Your task to perform on an android device: open app "Move to iOS" Image 0: 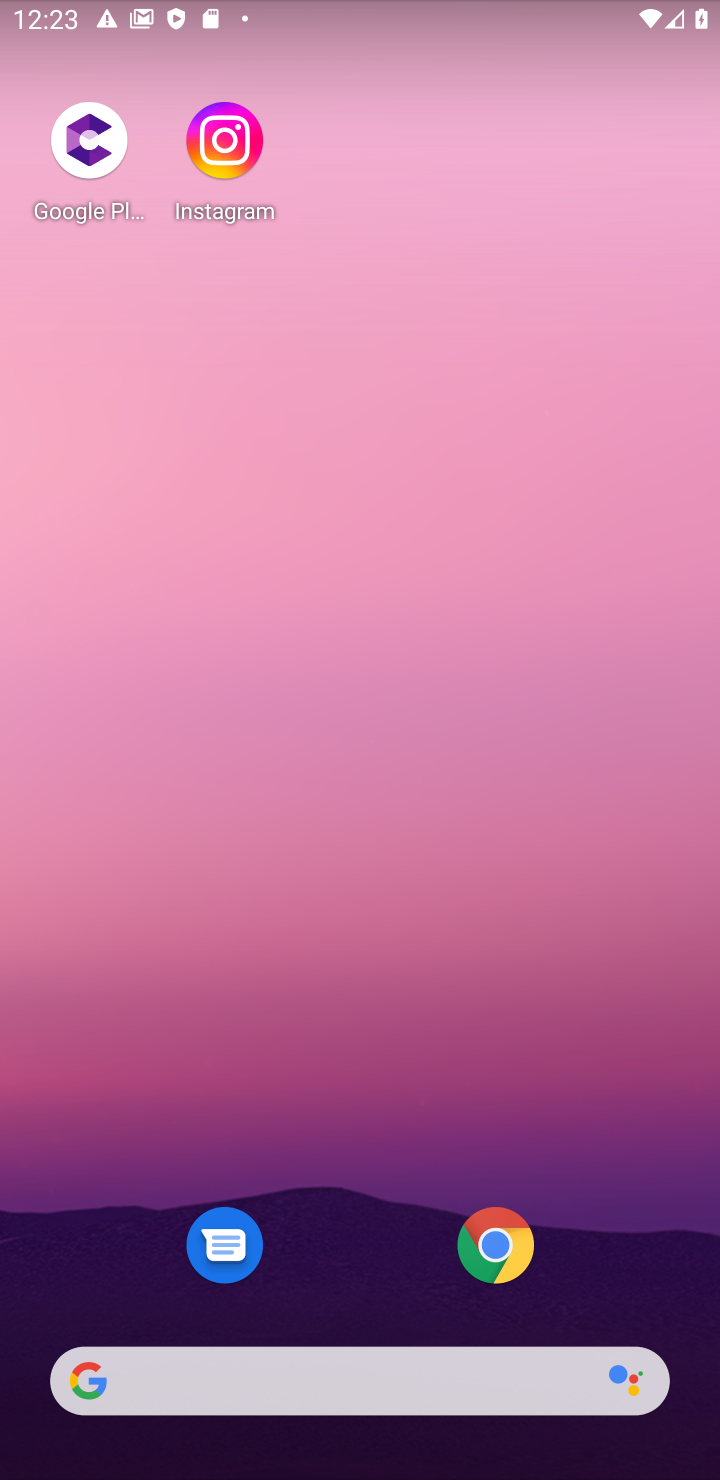
Step 0: drag from (408, 1329) to (408, 346)
Your task to perform on an android device: open app "Move to iOS" Image 1: 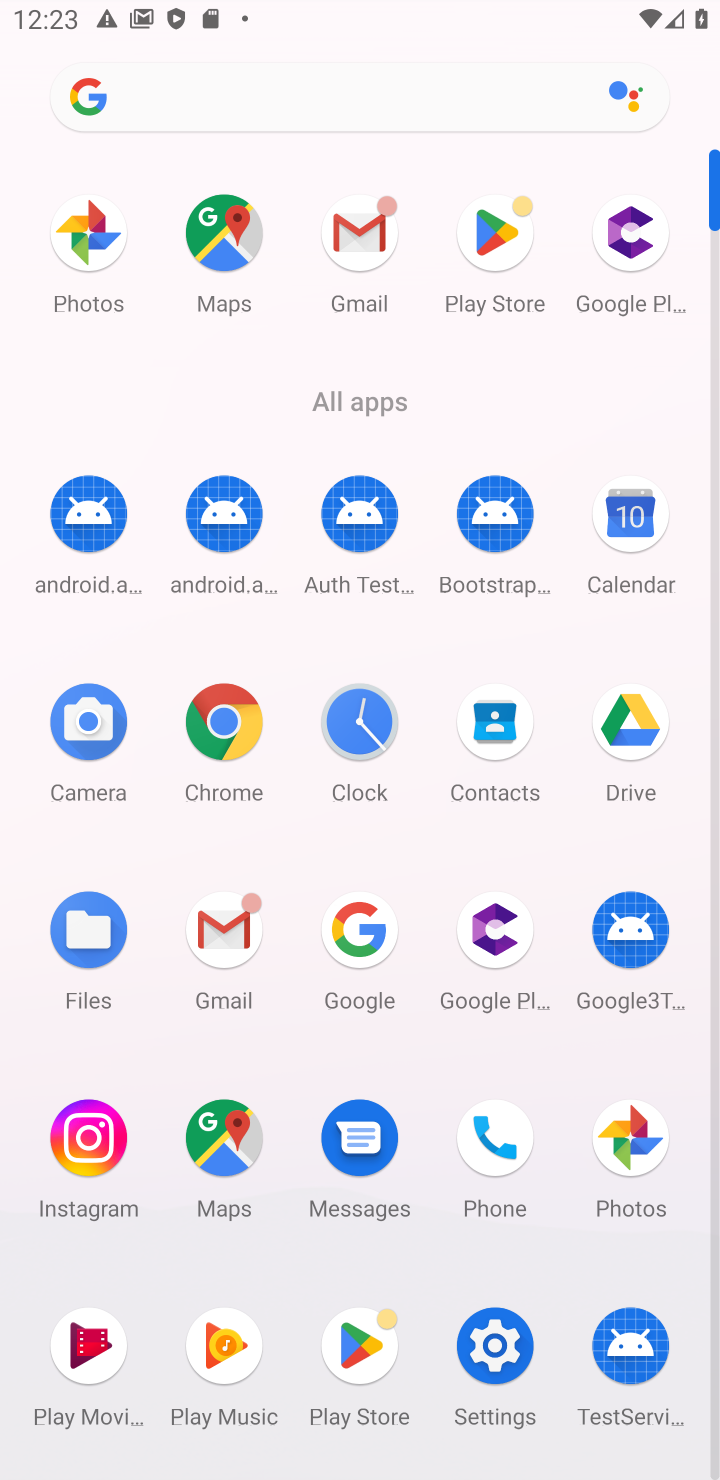
Step 1: click (501, 230)
Your task to perform on an android device: open app "Move to iOS" Image 2: 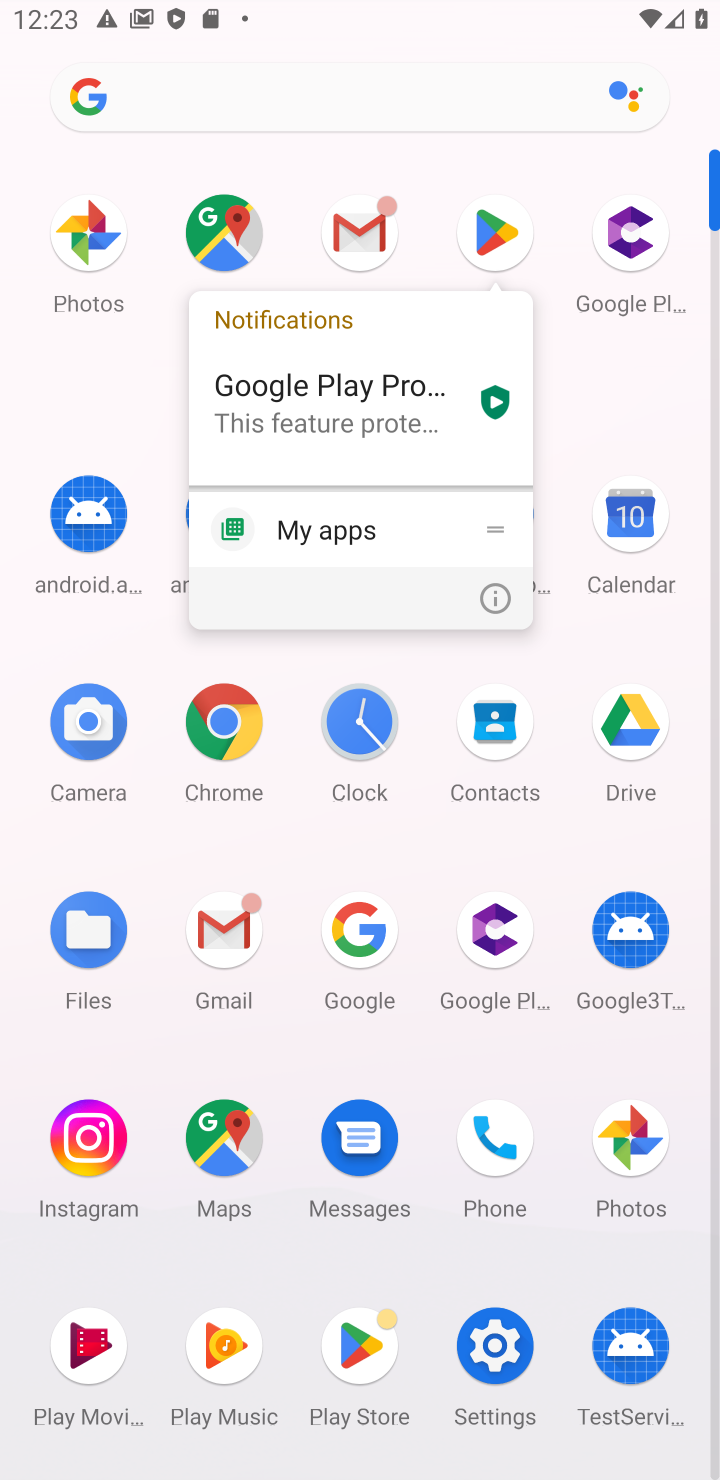
Step 2: click (485, 231)
Your task to perform on an android device: open app "Move to iOS" Image 3: 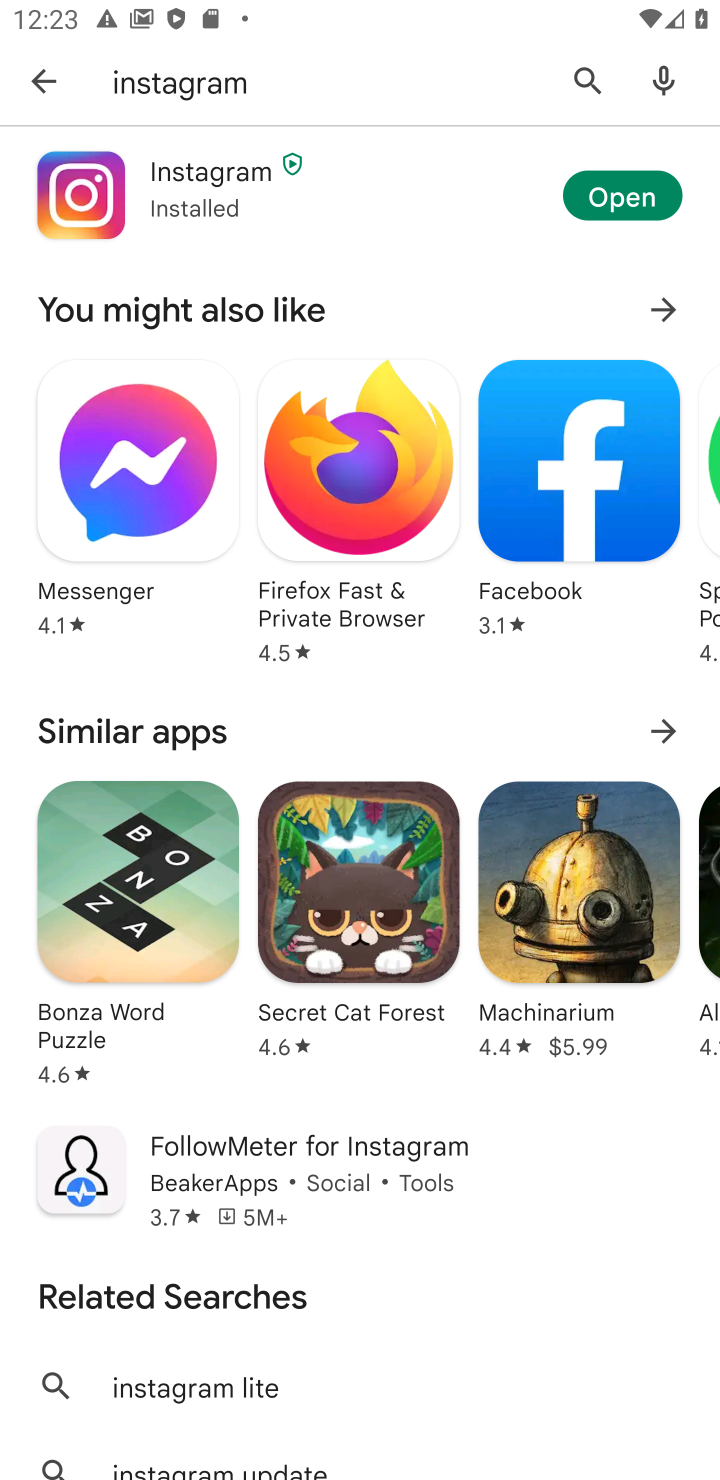
Step 3: click (574, 92)
Your task to perform on an android device: open app "Move to iOS" Image 4: 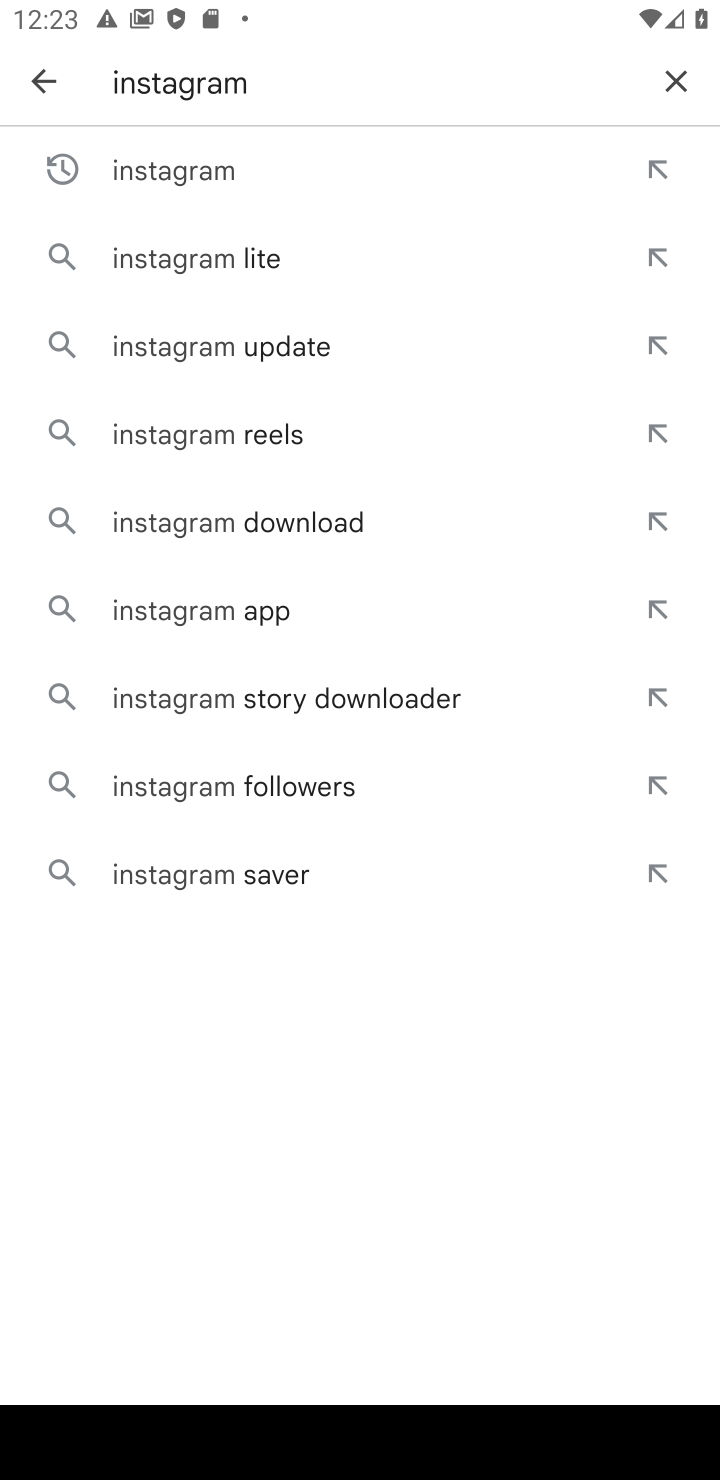
Step 4: click (682, 83)
Your task to perform on an android device: open app "Move to iOS" Image 5: 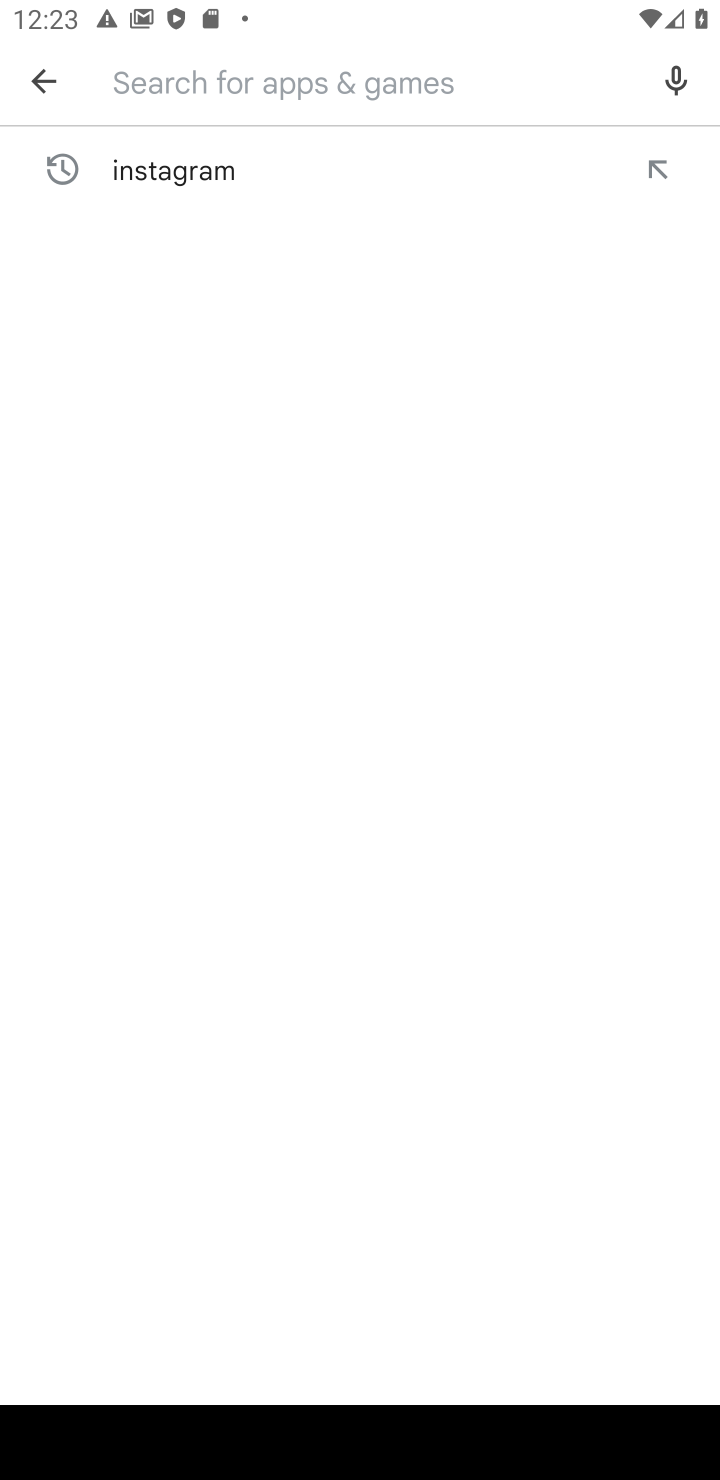
Step 5: type "Move to iOS"
Your task to perform on an android device: open app "Move to iOS" Image 6: 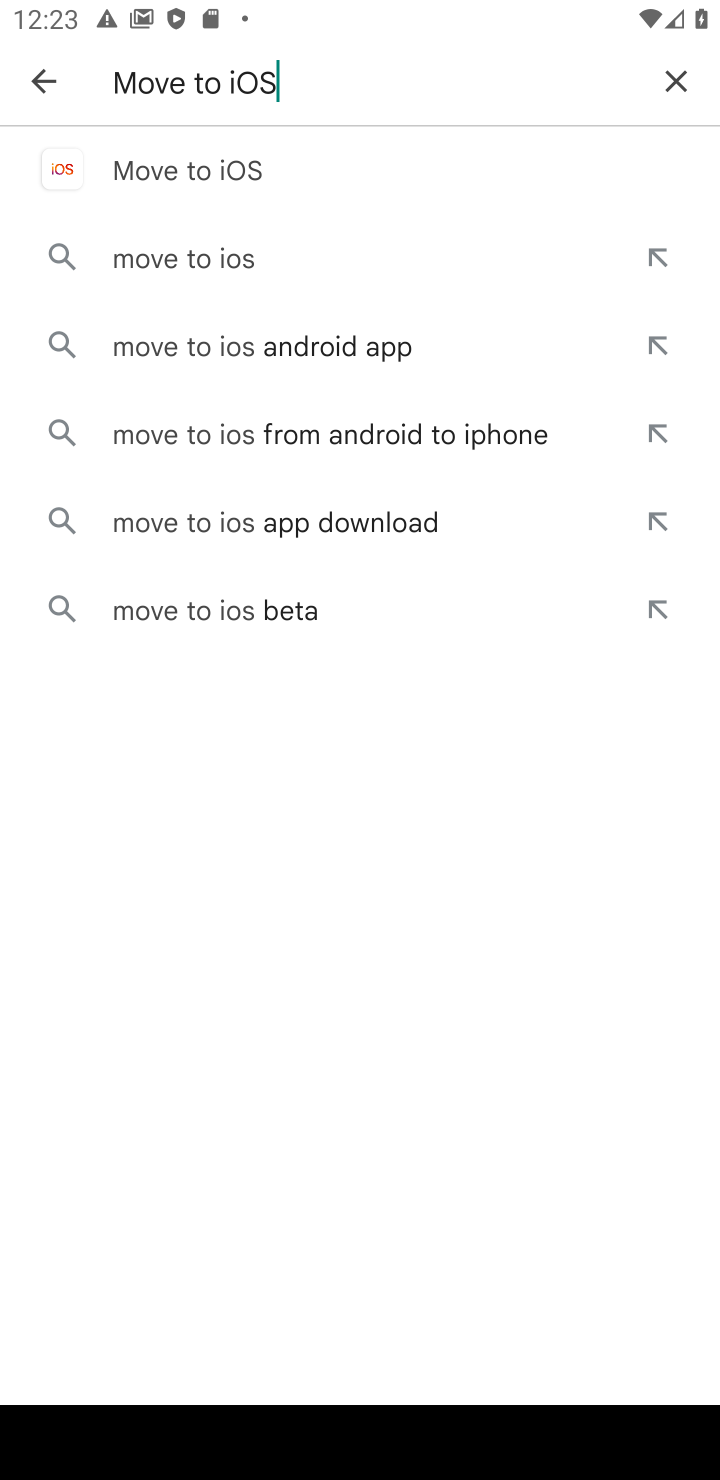
Step 6: click (256, 165)
Your task to perform on an android device: open app "Move to iOS" Image 7: 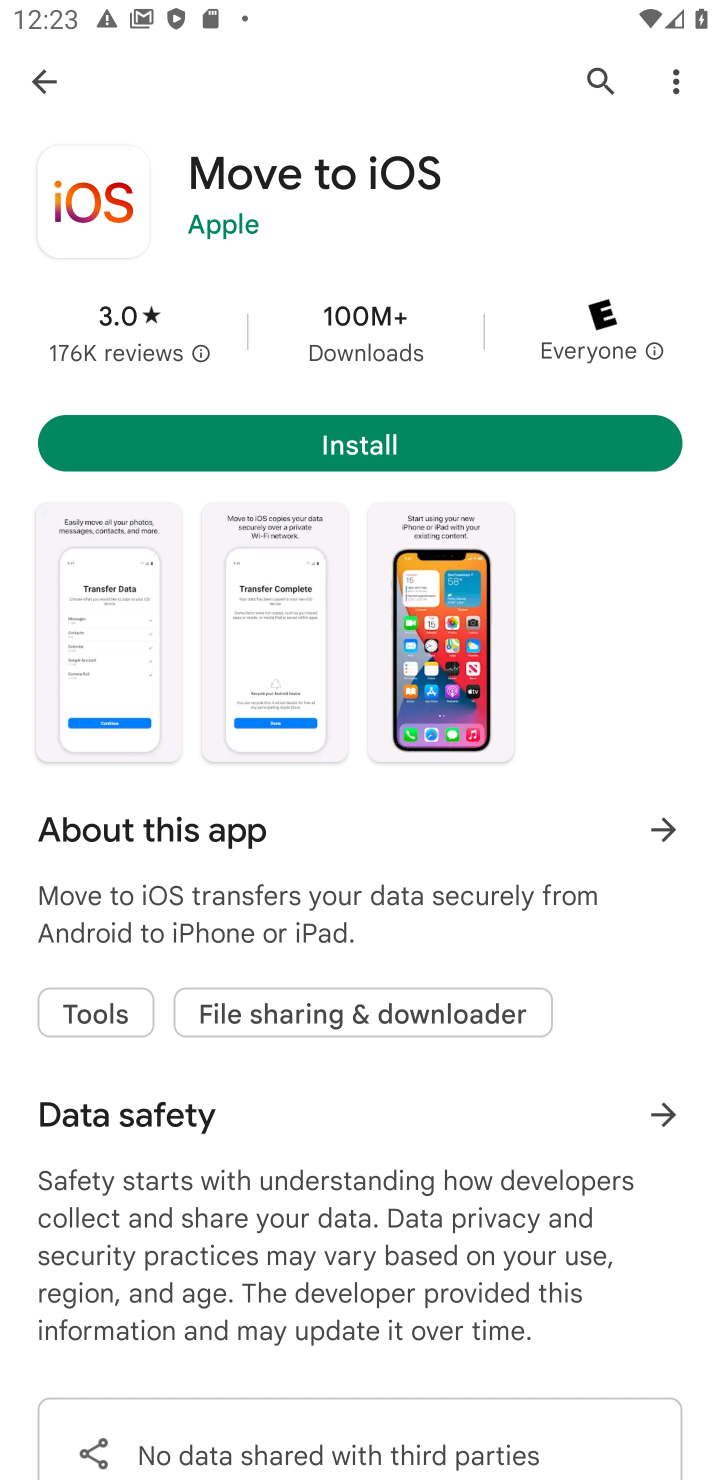
Step 7: click (379, 438)
Your task to perform on an android device: open app "Move to iOS" Image 8: 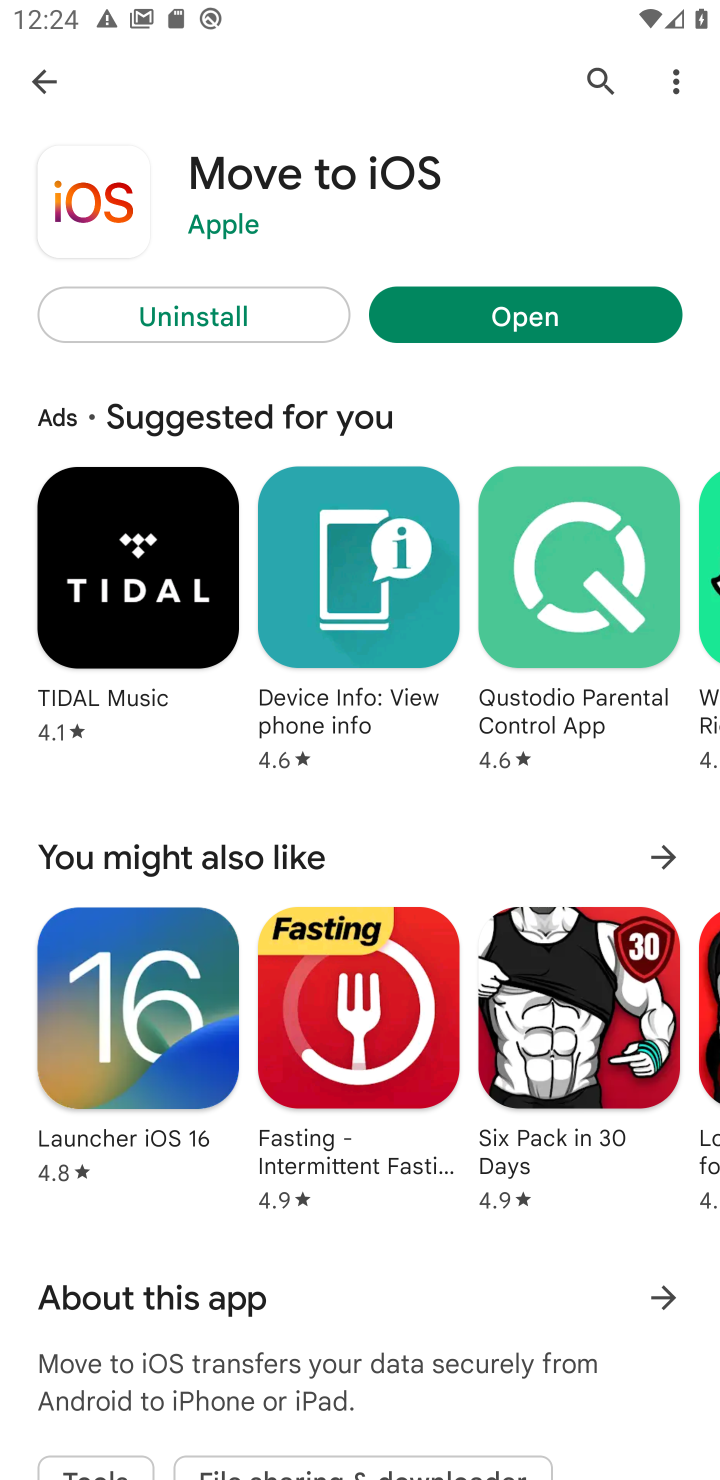
Step 8: click (493, 325)
Your task to perform on an android device: open app "Move to iOS" Image 9: 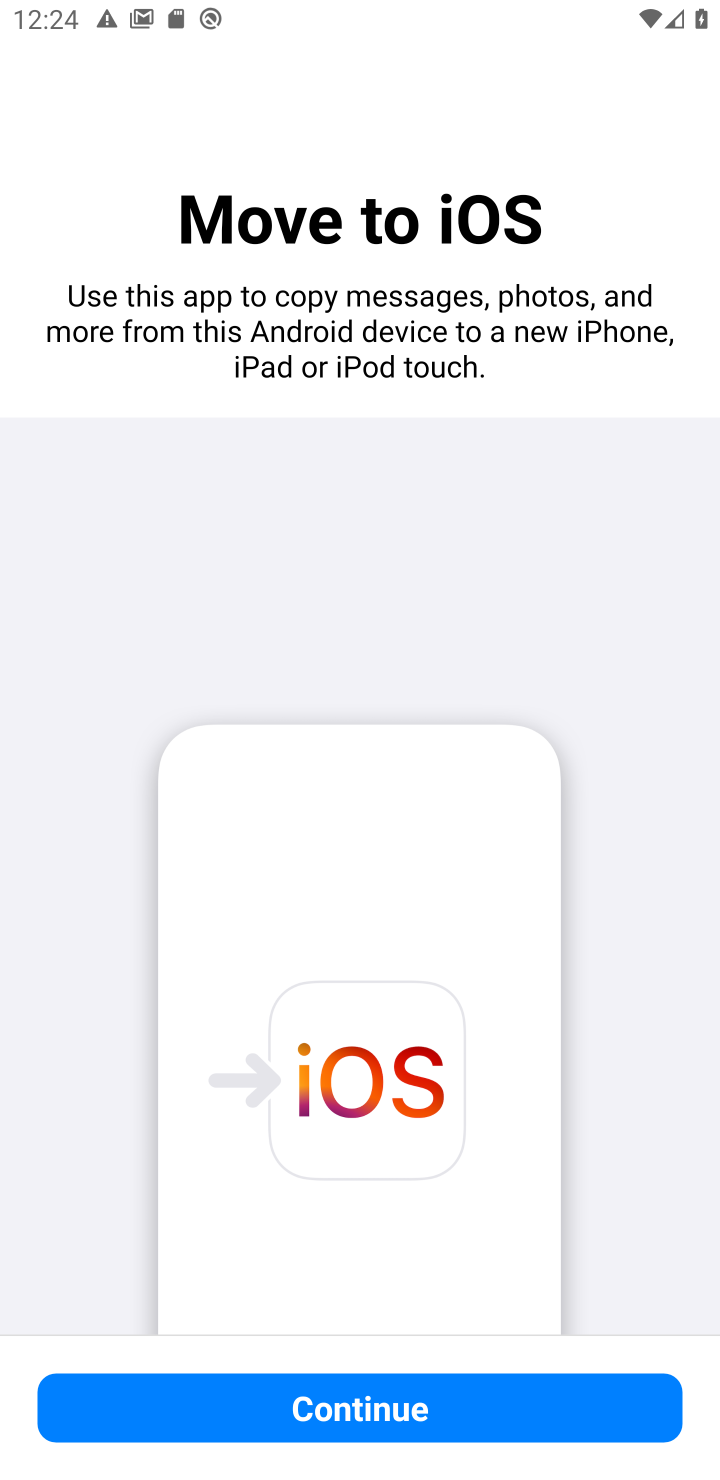
Step 9: task complete